Your task to perform on an android device: Go to Amazon Image 0: 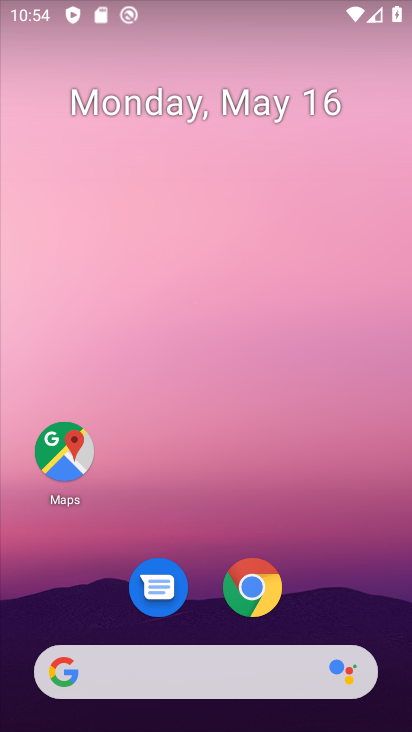
Step 0: drag from (350, 457) to (263, 117)
Your task to perform on an android device: Go to Amazon Image 1: 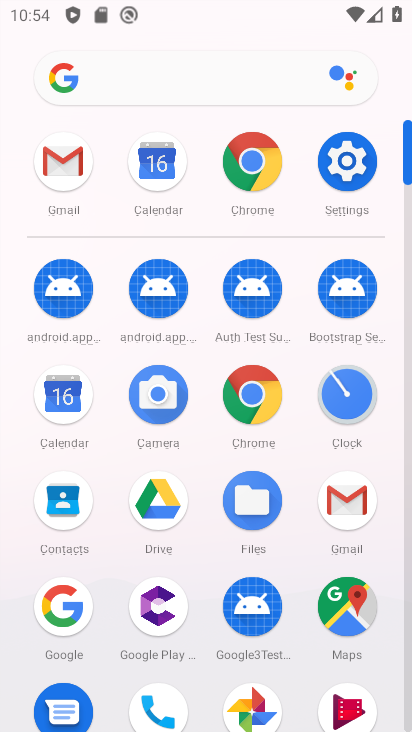
Step 1: click (256, 174)
Your task to perform on an android device: Go to Amazon Image 2: 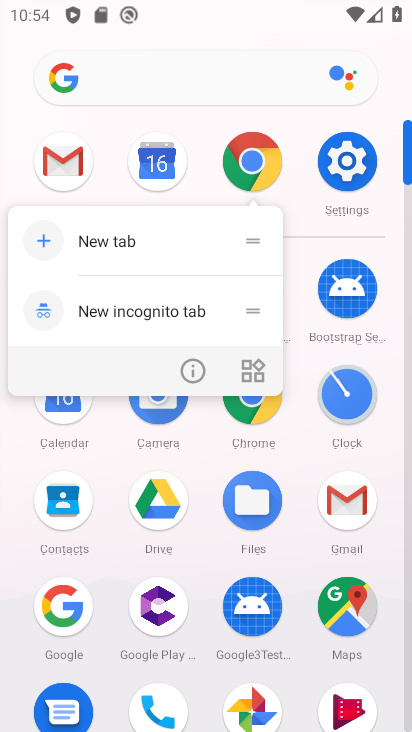
Step 2: click (260, 172)
Your task to perform on an android device: Go to Amazon Image 3: 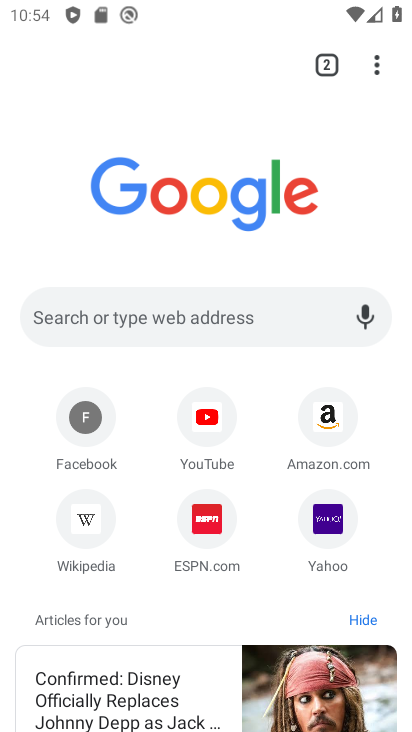
Step 3: click (350, 422)
Your task to perform on an android device: Go to Amazon Image 4: 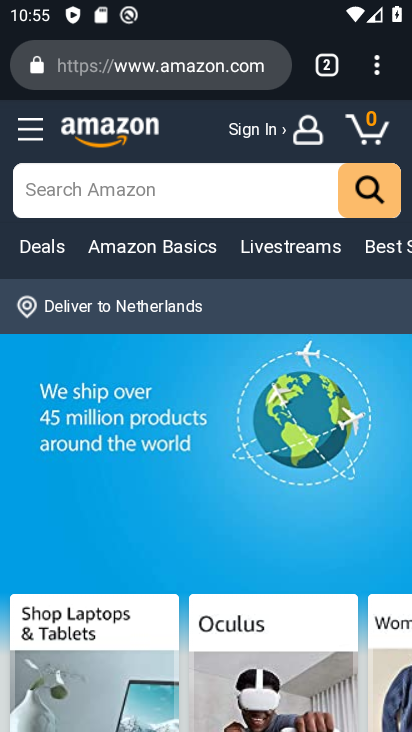
Step 4: task complete